Your task to perform on an android device: turn on priority inbox in the gmail app Image 0: 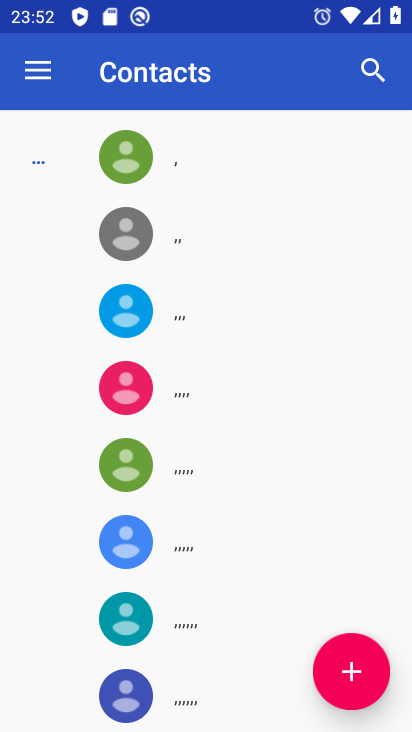
Step 0: press home button
Your task to perform on an android device: turn on priority inbox in the gmail app Image 1: 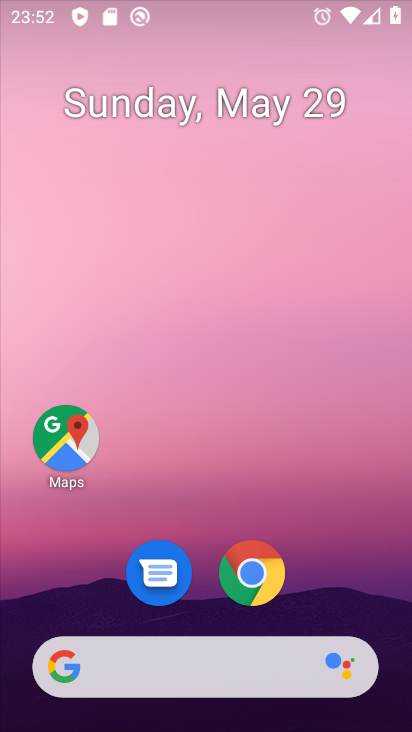
Step 1: drag from (353, 546) to (166, 14)
Your task to perform on an android device: turn on priority inbox in the gmail app Image 2: 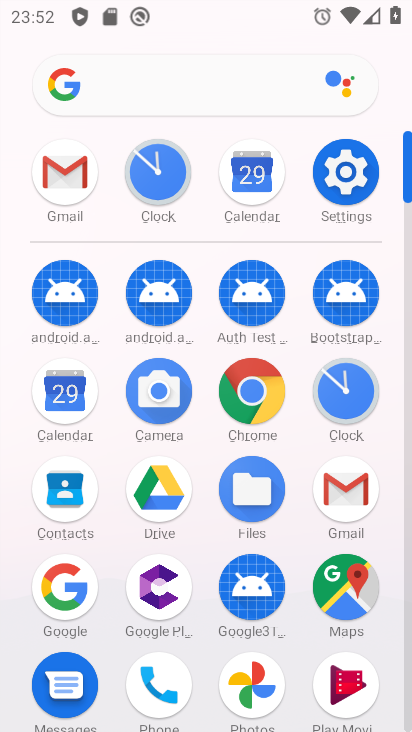
Step 2: click (371, 473)
Your task to perform on an android device: turn on priority inbox in the gmail app Image 3: 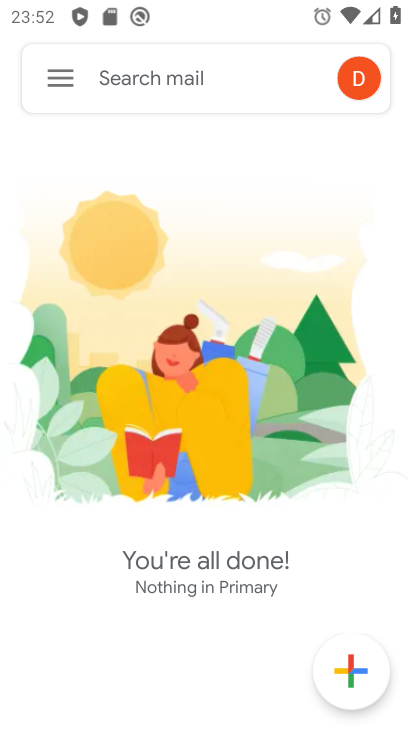
Step 3: click (50, 68)
Your task to perform on an android device: turn on priority inbox in the gmail app Image 4: 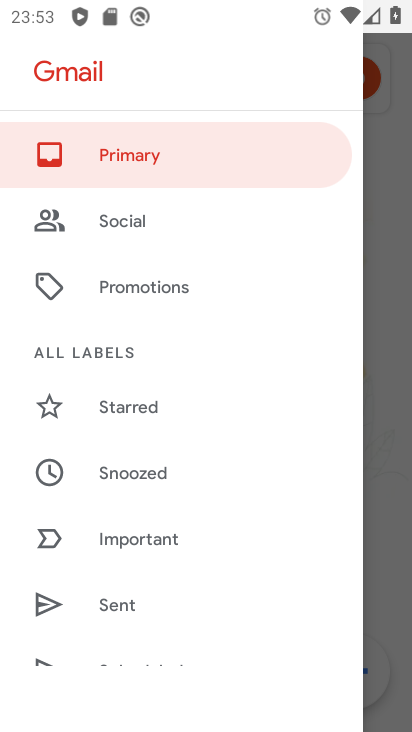
Step 4: drag from (209, 614) to (191, 266)
Your task to perform on an android device: turn on priority inbox in the gmail app Image 5: 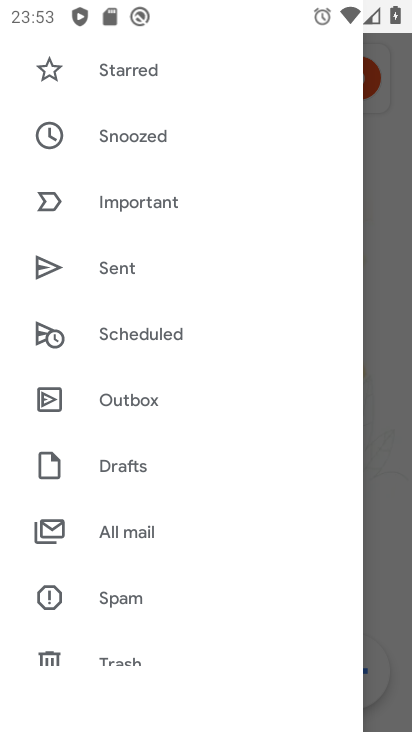
Step 5: drag from (192, 574) to (199, 4)
Your task to perform on an android device: turn on priority inbox in the gmail app Image 6: 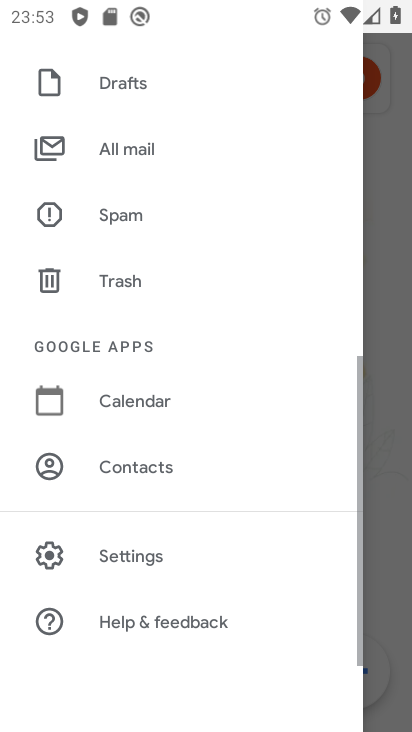
Step 6: click (160, 548)
Your task to perform on an android device: turn on priority inbox in the gmail app Image 7: 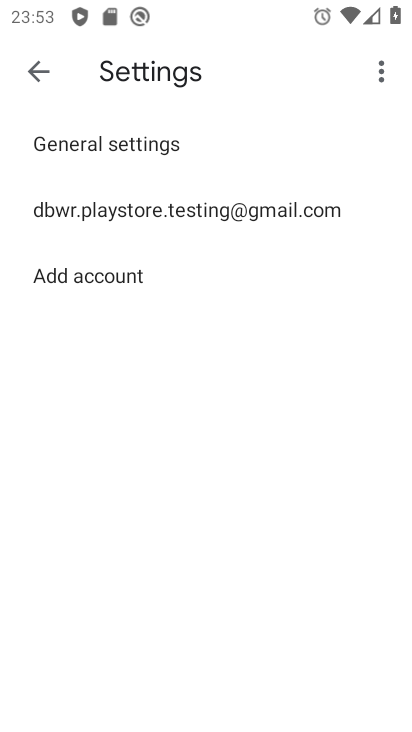
Step 7: click (158, 212)
Your task to perform on an android device: turn on priority inbox in the gmail app Image 8: 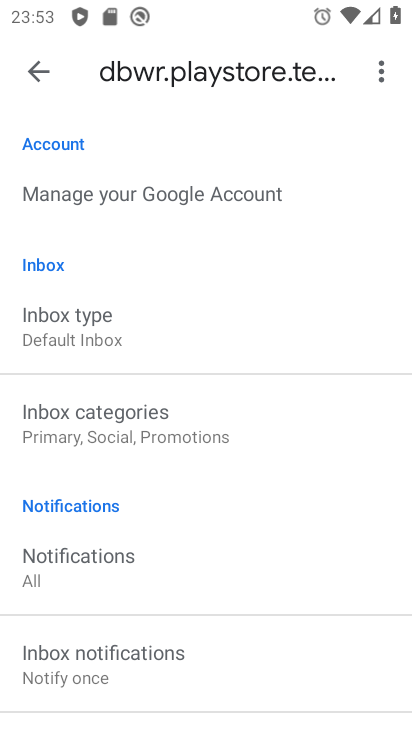
Step 8: click (193, 326)
Your task to perform on an android device: turn on priority inbox in the gmail app Image 9: 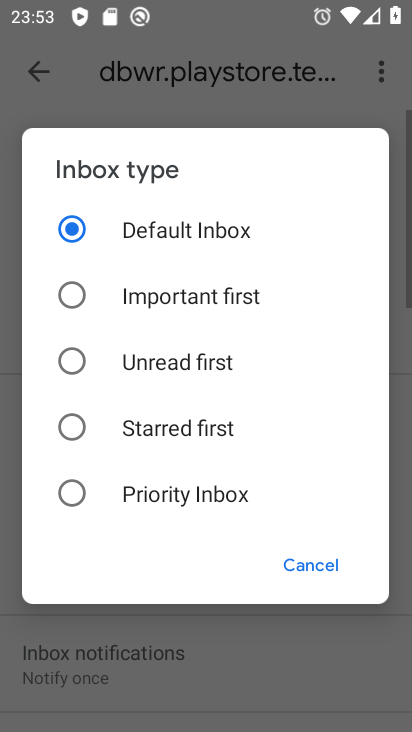
Step 9: click (211, 501)
Your task to perform on an android device: turn on priority inbox in the gmail app Image 10: 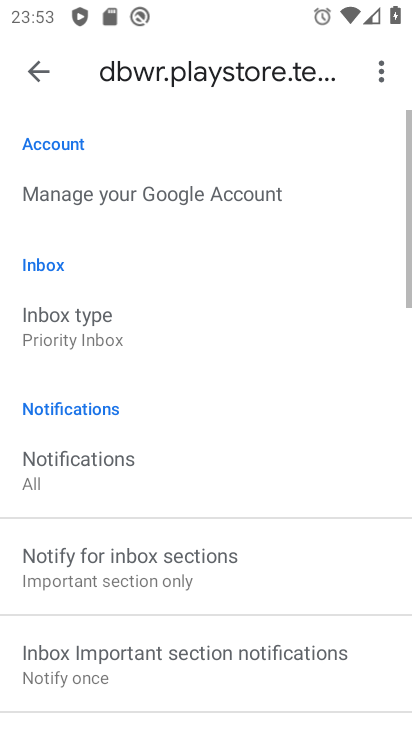
Step 10: task complete